Your task to perform on an android device: change the upload size in google photos Image 0: 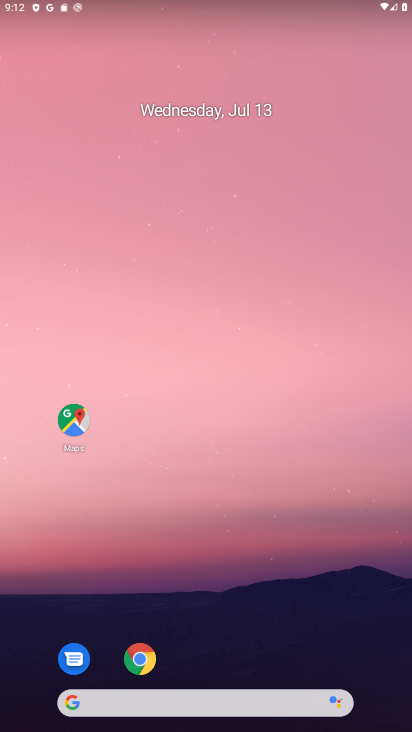
Step 0: drag from (263, 647) to (231, 201)
Your task to perform on an android device: change the upload size in google photos Image 1: 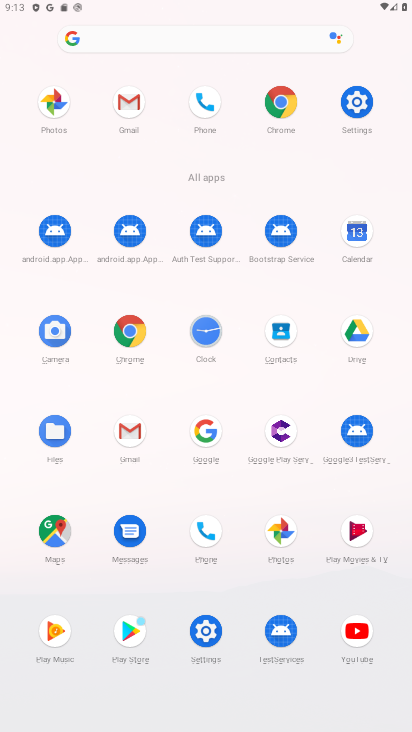
Step 1: click (283, 535)
Your task to perform on an android device: change the upload size in google photos Image 2: 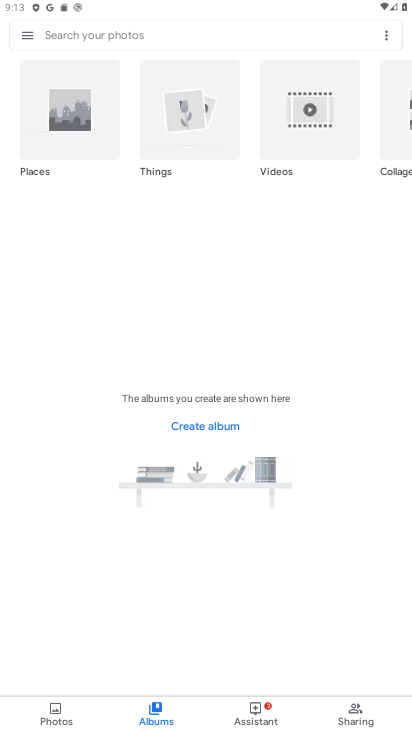
Step 2: click (23, 28)
Your task to perform on an android device: change the upload size in google photos Image 3: 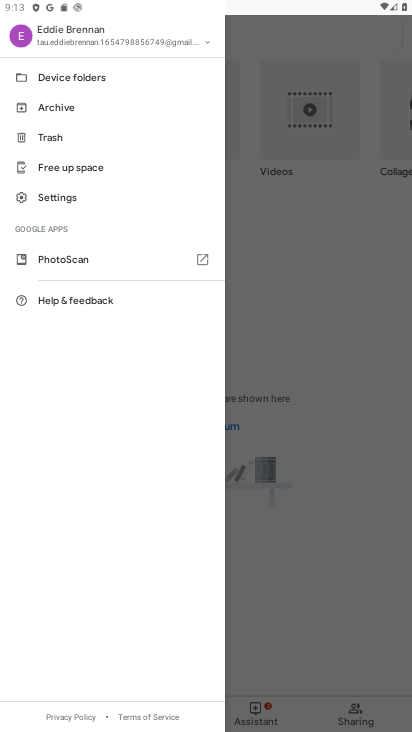
Step 3: click (78, 192)
Your task to perform on an android device: change the upload size in google photos Image 4: 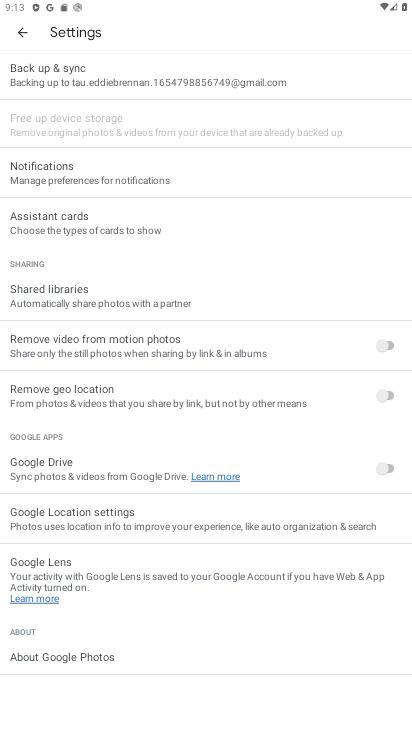
Step 4: click (147, 80)
Your task to perform on an android device: change the upload size in google photos Image 5: 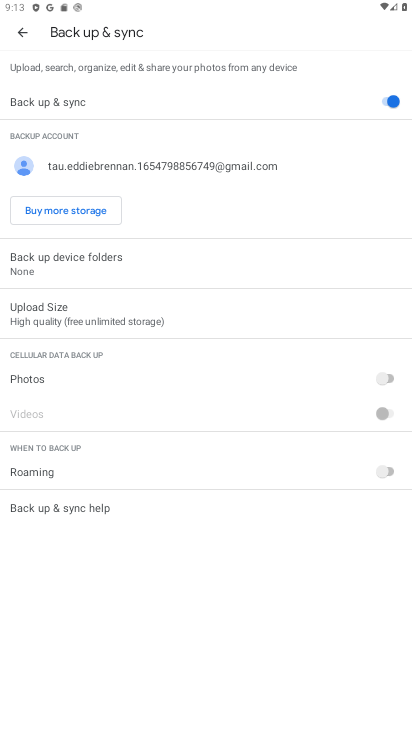
Step 5: click (114, 317)
Your task to perform on an android device: change the upload size in google photos Image 6: 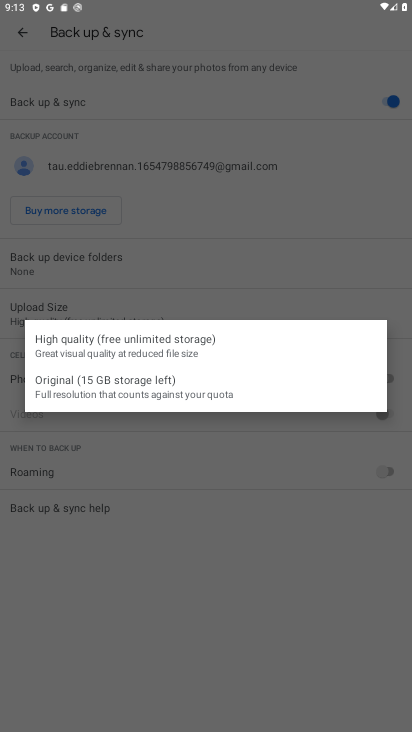
Step 6: click (118, 386)
Your task to perform on an android device: change the upload size in google photos Image 7: 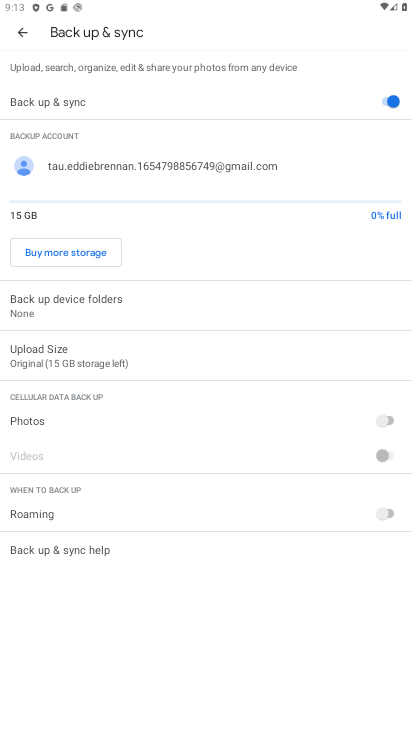
Step 7: task complete